Your task to perform on an android device: show emergency info Image 0: 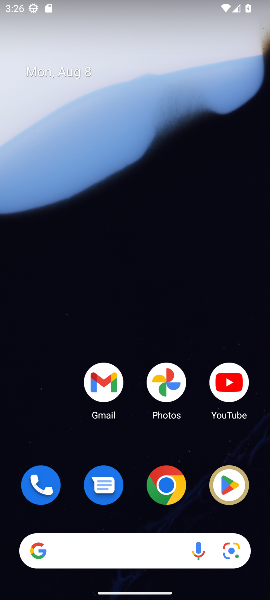
Step 0: drag from (169, 575) to (126, 262)
Your task to perform on an android device: show emergency info Image 1: 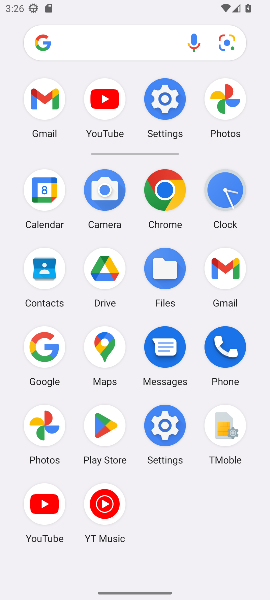
Step 1: click (154, 423)
Your task to perform on an android device: show emergency info Image 2: 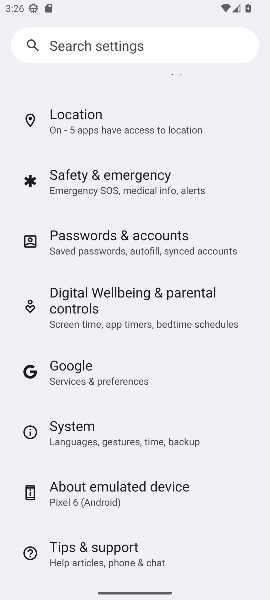
Step 2: click (154, 424)
Your task to perform on an android device: show emergency info Image 3: 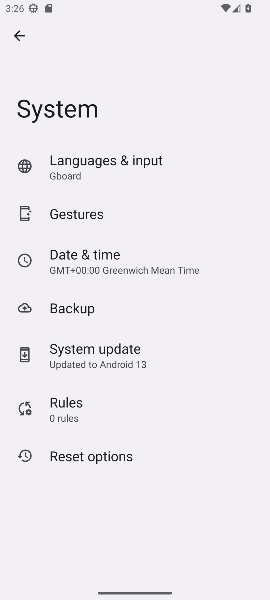
Step 3: drag from (117, 467) to (86, 157)
Your task to perform on an android device: show emergency info Image 4: 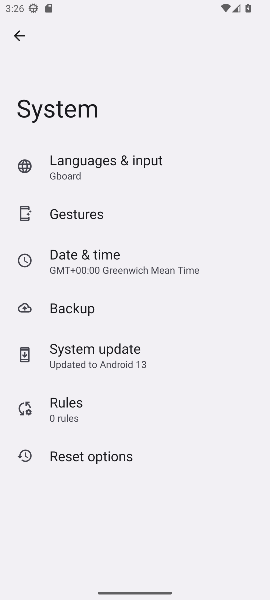
Step 4: click (21, 33)
Your task to perform on an android device: show emergency info Image 5: 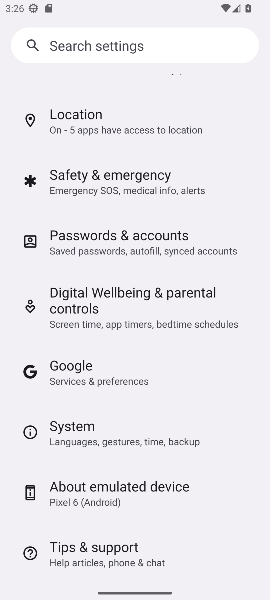
Step 5: drag from (118, 462) to (175, 177)
Your task to perform on an android device: show emergency info Image 6: 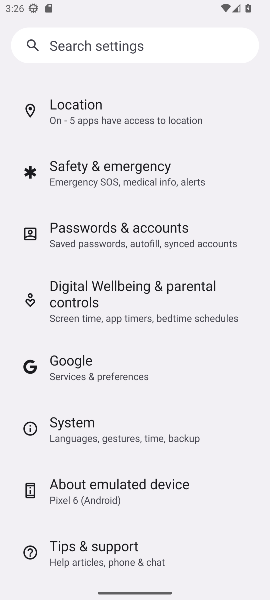
Step 6: drag from (164, 477) to (136, 221)
Your task to perform on an android device: show emergency info Image 7: 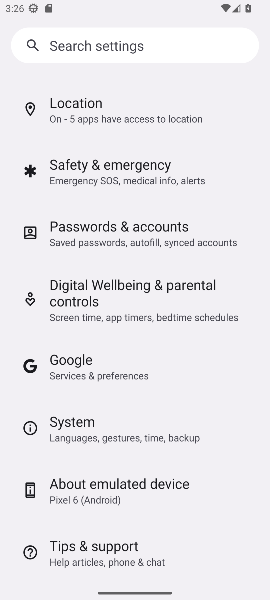
Step 7: drag from (135, 424) to (121, 186)
Your task to perform on an android device: show emergency info Image 8: 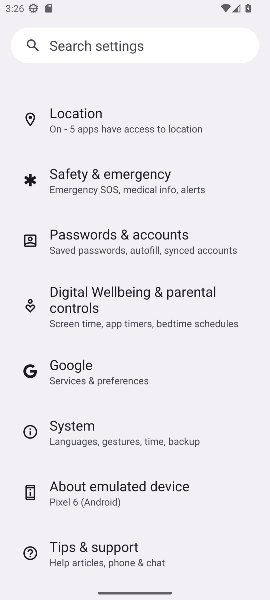
Step 8: drag from (112, 474) to (129, 214)
Your task to perform on an android device: show emergency info Image 9: 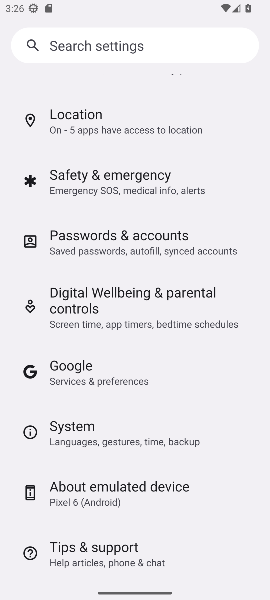
Step 9: click (95, 485)
Your task to perform on an android device: show emergency info Image 10: 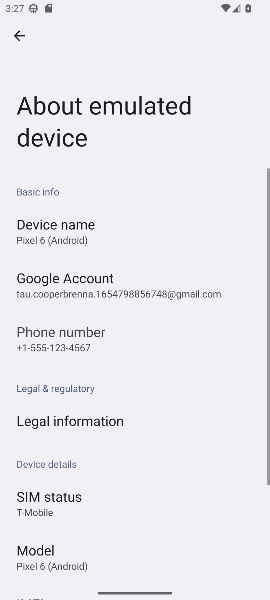
Step 10: click (15, 31)
Your task to perform on an android device: show emergency info Image 11: 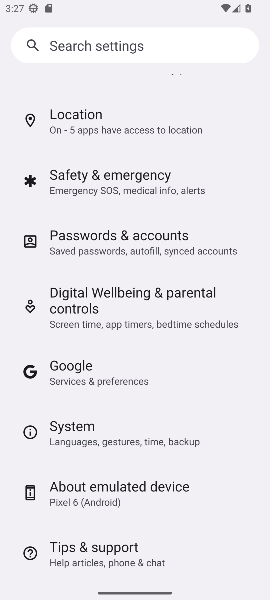
Step 11: click (109, 175)
Your task to perform on an android device: show emergency info Image 12: 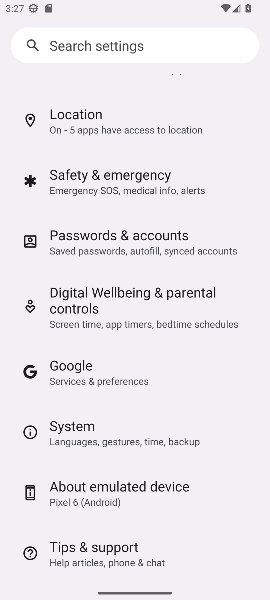
Step 12: click (109, 175)
Your task to perform on an android device: show emergency info Image 13: 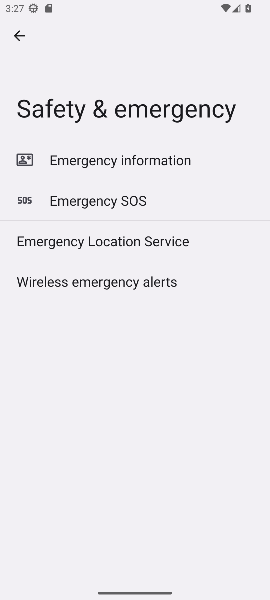
Step 13: click (116, 148)
Your task to perform on an android device: show emergency info Image 14: 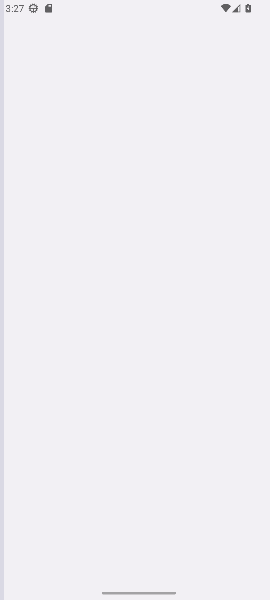
Step 14: click (114, 156)
Your task to perform on an android device: show emergency info Image 15: 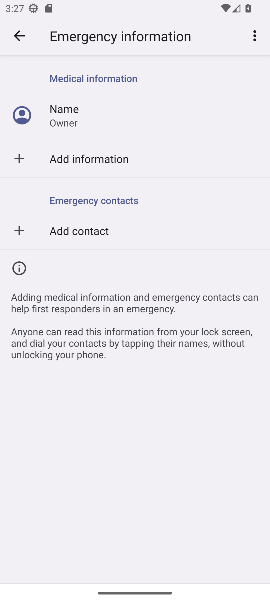
Step 15: task complete